Your task to perform on an android device: find which apps use the phone's location Image 0: 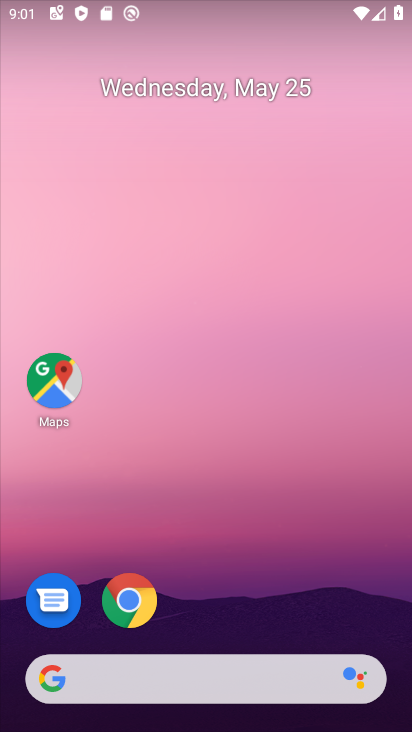
Step 0: drag from (315, 562) to (244, 19)
Your task to perform on an android device: find which apps use the phone's location Image 1: 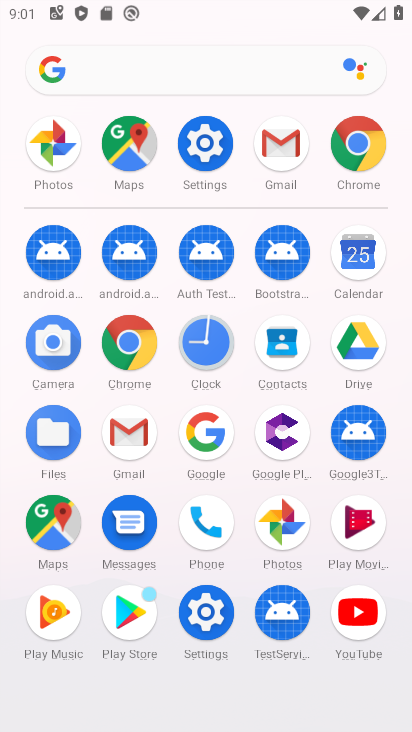
Step 1: click (203, 609)
Your task to perform on an android device: find which apps use the phone's location Image 2: 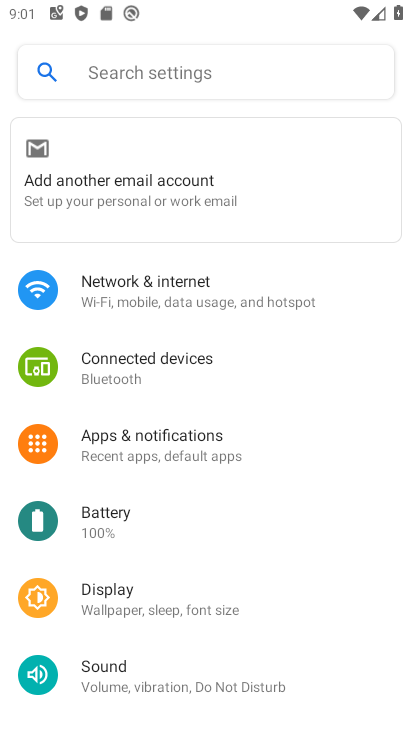
Step 2: drag from (274, 571) to (293, 145)
Your task to perform on an android device: find which apps use the phone's location Image 3: 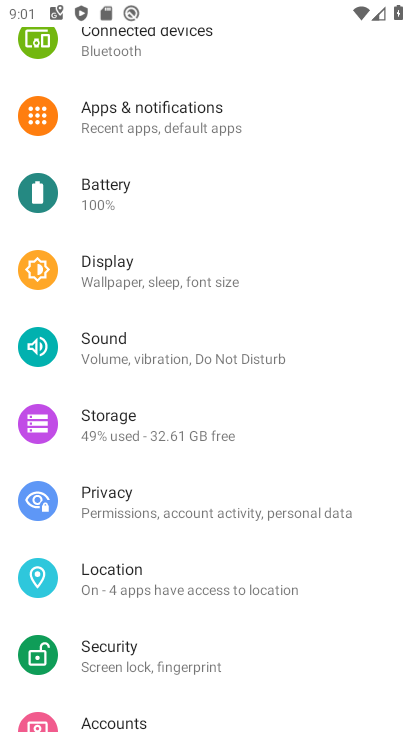
Step 3: click (130, 570)
Your task to perform on an android device: find which apps use the phone's location Image 4: 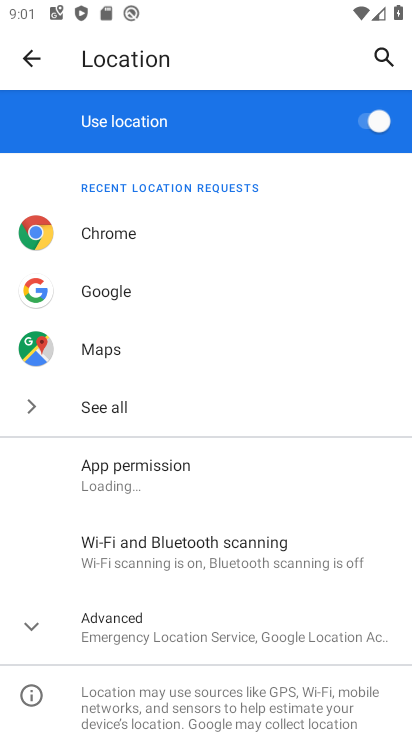
Step 4: click (150, 473)
Your task to perform on an android device: find which apps use the phone's location Image 5: 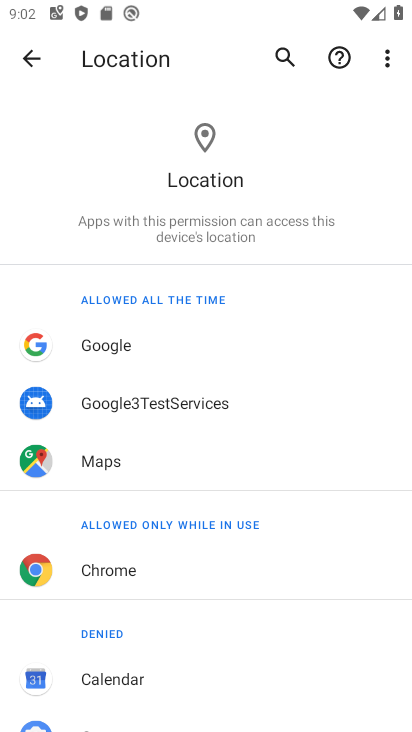
Step 5: task complete